Your task to perform on an android device: change the clock display to show seconds Image 0: 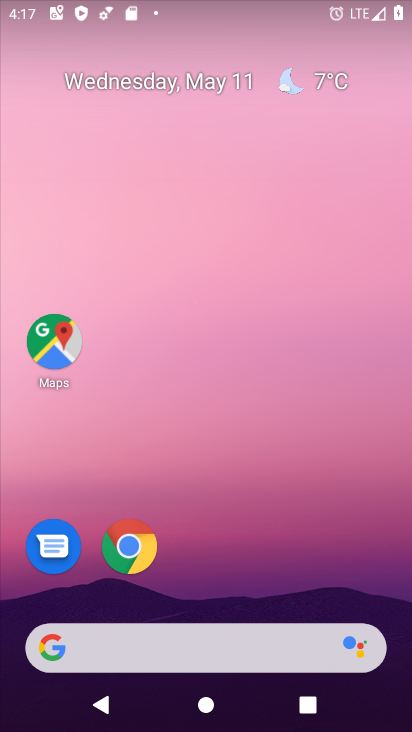
Step 0: drag from (285, 567) to (367, 107)
Your task to perform on an android device: change the clock display to show seconds Image 1: 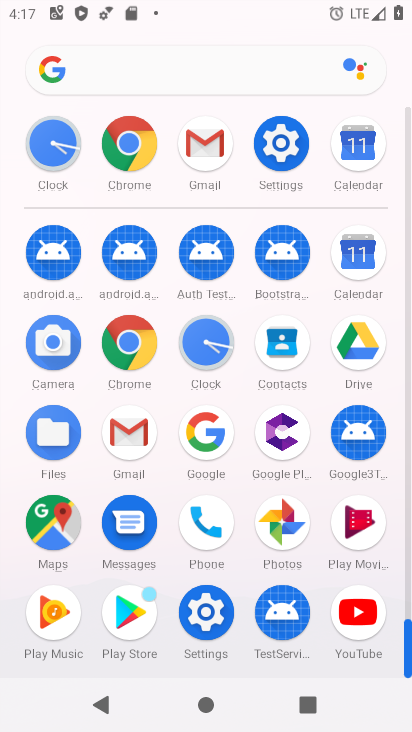
Step 1: click (198, 344)
Your task to perform on an android device: change the clock display to show seconds Image 2: 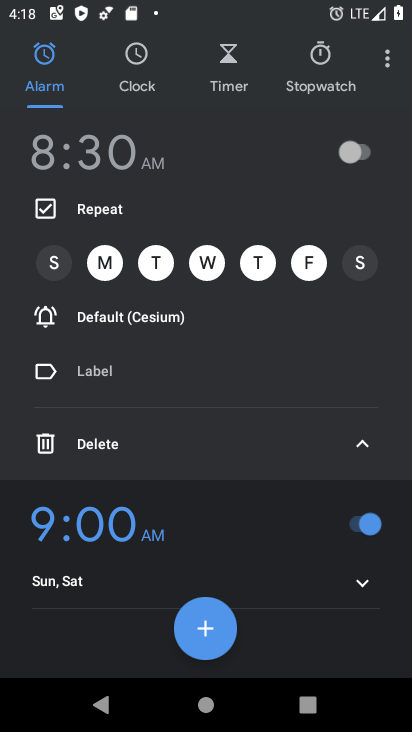
Step 2: click (379, 71)
Your task to perform on an android device: change the clock display to show seconds Image 3: 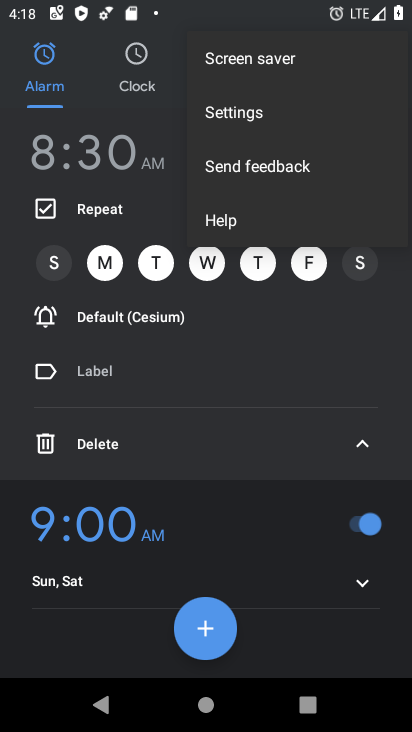
Step 3: click (279, 117)
Your task to perform on an android device: change the clock display to show seconds Image 4: 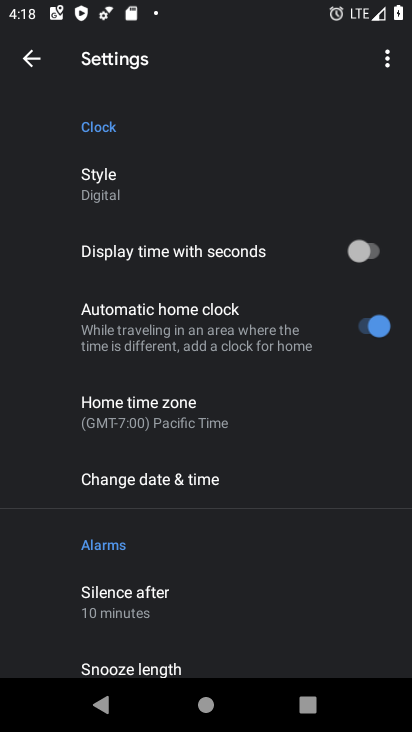
Step 4: click (379, 253)
Your task to perform on an android device: change the clock display to show seconds Image 5: 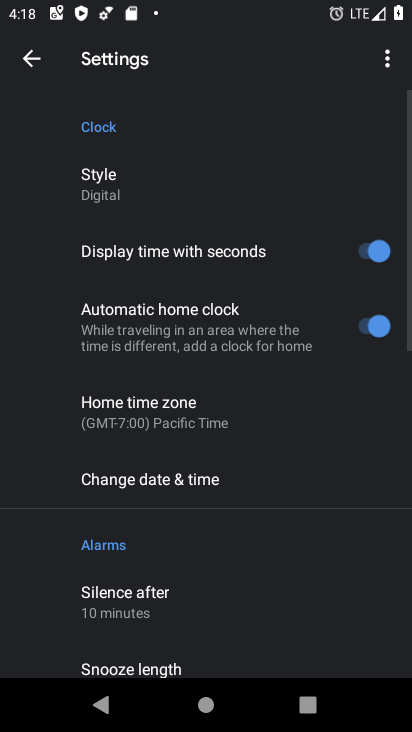
Step 5: task complete